Your task to perform on an android device: turn on notifications settings in the gmail app Image 0: 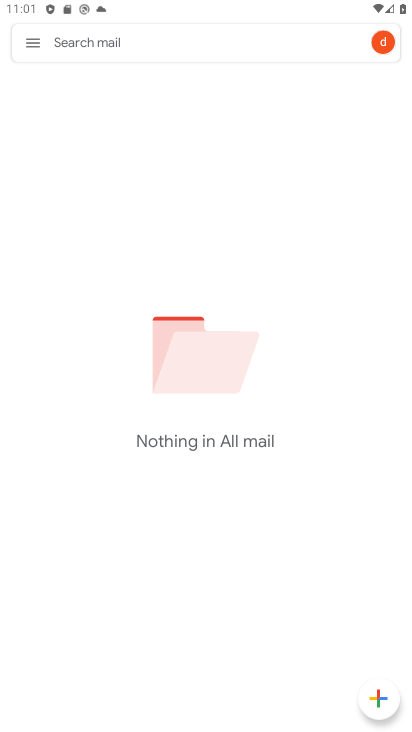
Step 0: click (25, 40)
Your task to perform on an android device: turn on notifications settings in the gmail app Image 1: 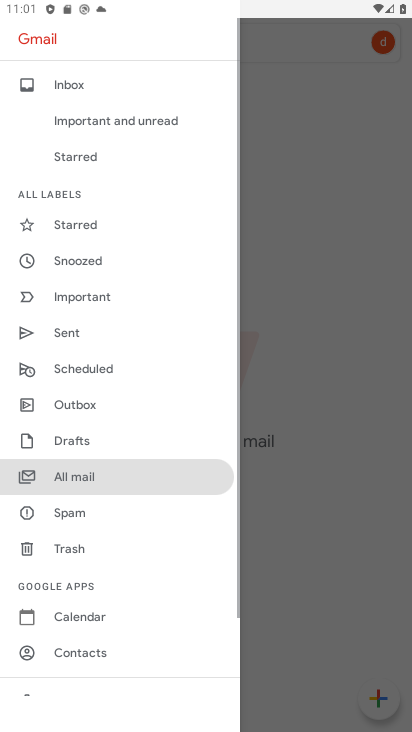
Step 1: drag from (72, 615) to (138, 113)
Your task to perform on an android device: turn on notifications settings in the gmail app Image 2: 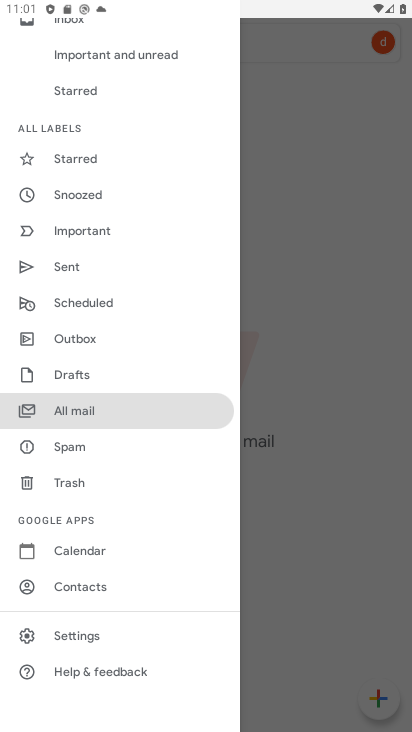
Step 2: click (75, 634)
Your task to perform on an android device: turn on notifications settings in the gmail app Image 3: 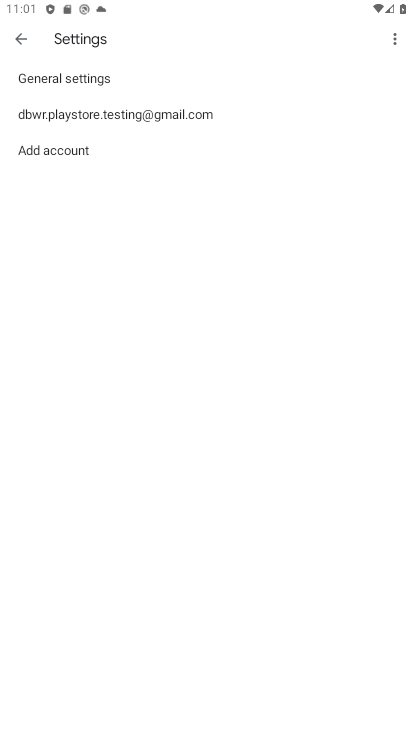
Step 3: click (87, 112)
Your task to perform on an android device: turn on notifications settings in the gmail app Image 4: 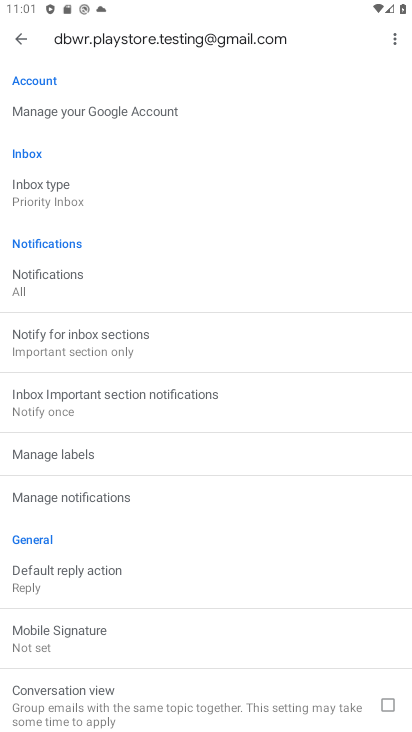
Step 4: click (64, 495)
Your task to perform on an android device: turn on notifications settings in the gmail app Image 5: 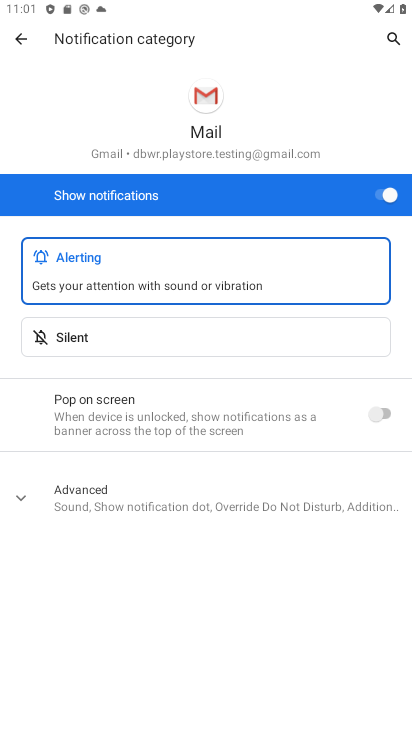
Step 5: task complete